Your task to perform on an android device: manage bookmarks in the chrome app Image 0: 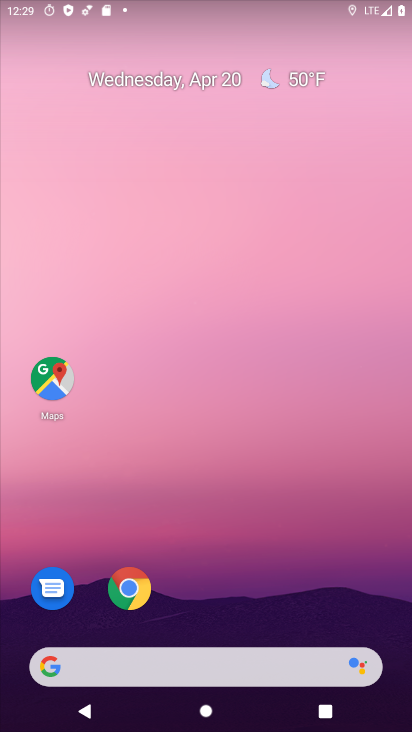
Step 0: click (123, 575)
Your task to perform on an android device: manage bookmarks in the chrome app Image 1: 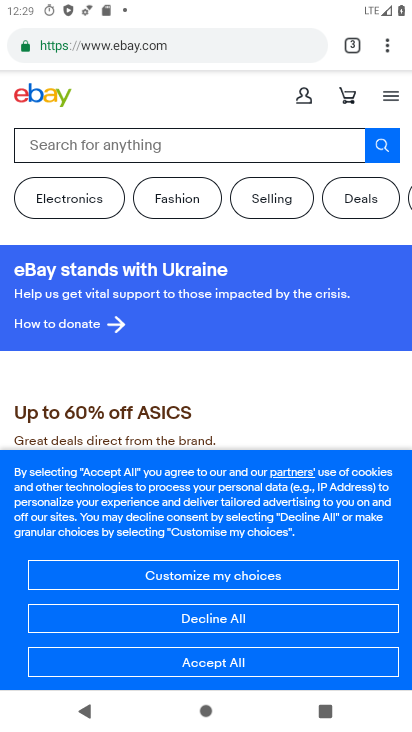
Step 1: click (382, 52)
Your task to perform on an android device: manage bookmarks in the chrome app Image 2: 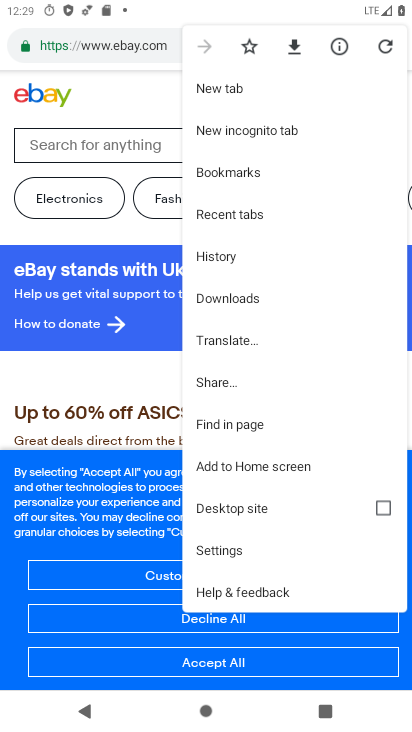
Step 2: click (228, 171)
Your task to perform on an android device: manage bookmarks in the chrome app Image 3: 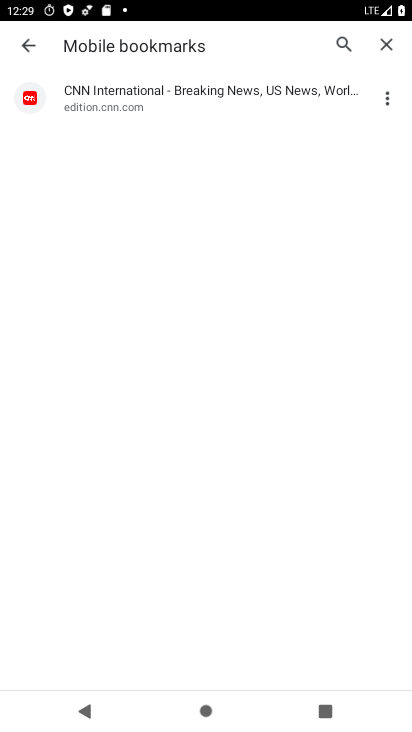
Step 3: click (383, 112)
Your task to perform on an android device: manage bookmarks in the chrome app Image 4: 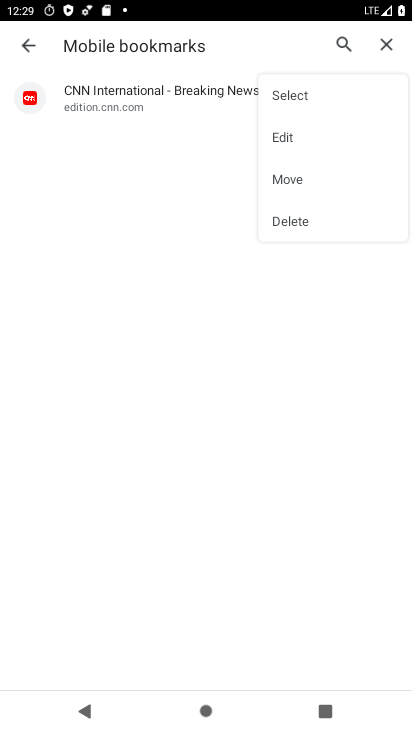
Step 4: click (290, 128)
Your task to perform on an android device: manage bookmarks in the chrome app Image 5: 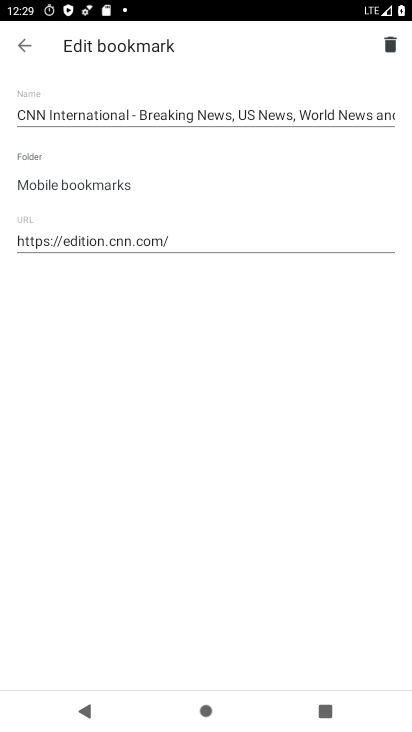
Step 5: task complete